Your task to perform on an android device: change the clock style Image 0: 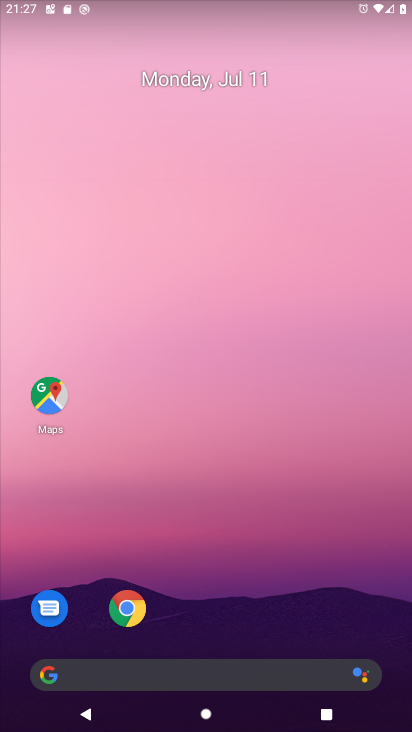
Step 0: drag from (320, 596) to (270, 12)
Your task to perform on an android device: change the clock style Image 1: 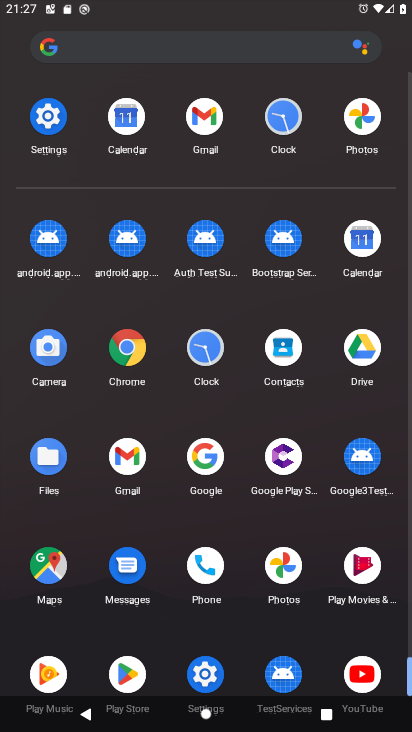
Step 1: click (271, 163)
Your task to perform on an android device: change the clock style Image 2: 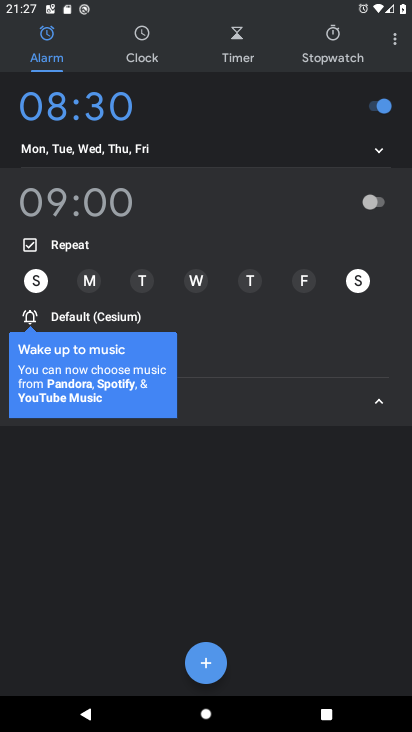
Step 2: click (390, 37)
Your task to perform on an android device: change the clock style Image 3: 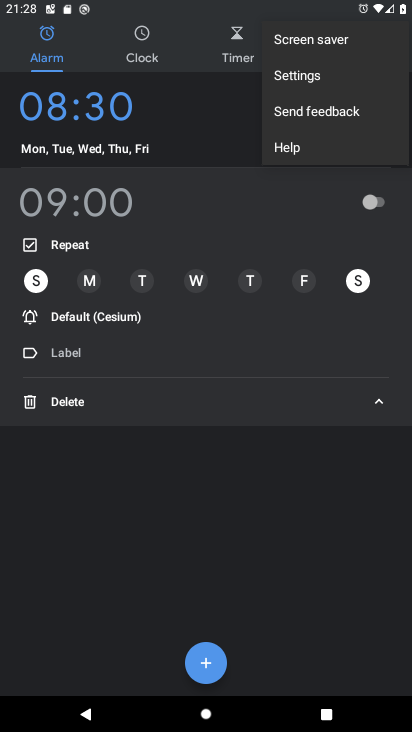
Step 3: click (392, 55)
Your task to perform on an android device: change the clock style Image 4: 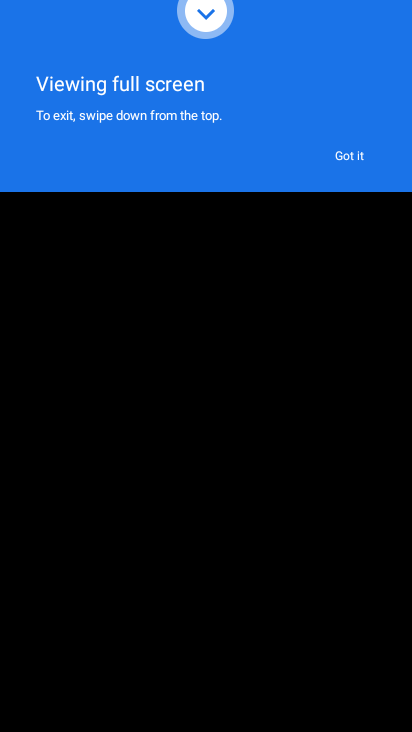
Step 4: click (330, 156)
Your task to perform on an android device: change the clock style Image 5: 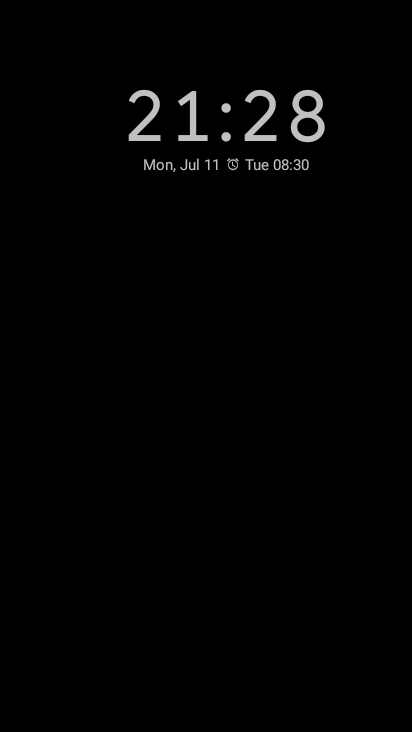
Step 5: click (192, 162)
Your task to perform on an android device: change the clock style Image 6: 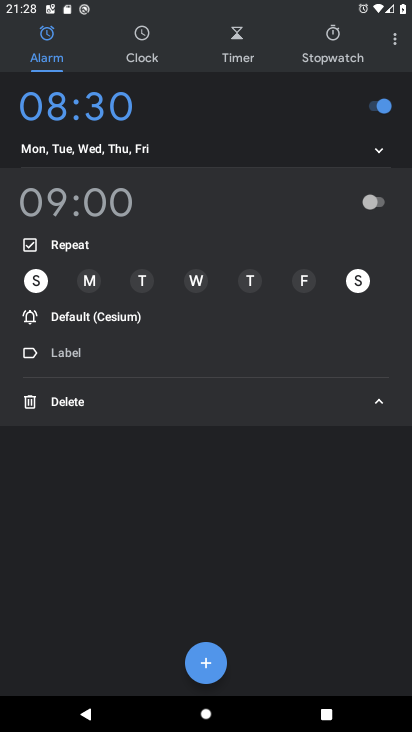
Step 6: click (387, 29)
Your task to perform on an android device: change the clock style Image 7: 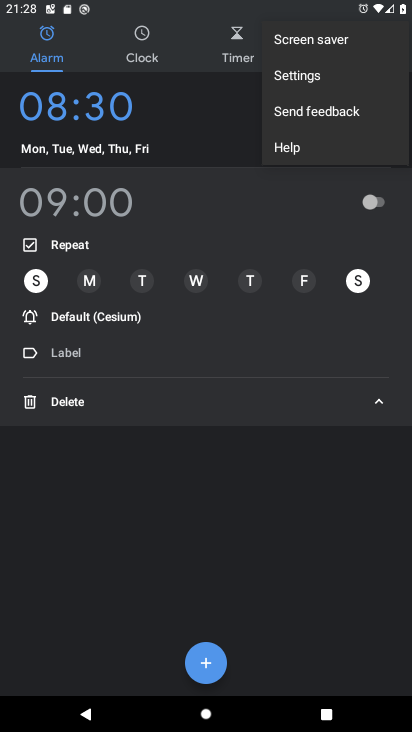
Step 7: click (307, 81)
Your task to perform on an android device: change the clock style Image 8: 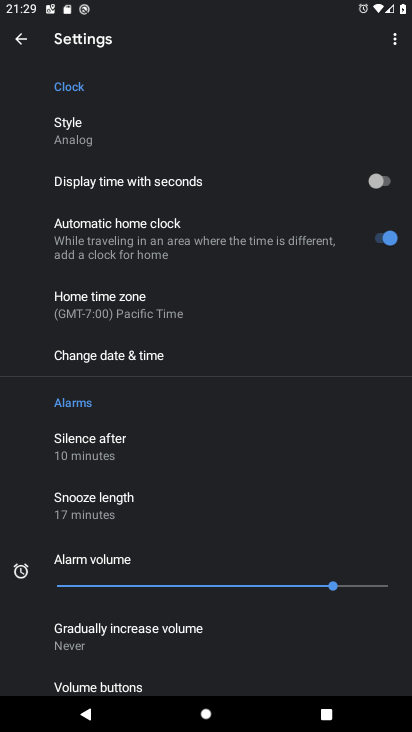
Step 8: task complete